Your task to perform on an android device: turn notification dots on Image 0: 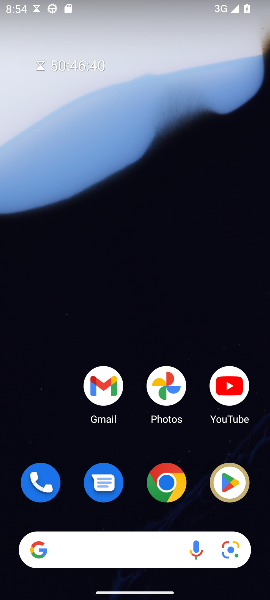
Step 0: drag from (144, 535) to (6, 115)
Your task to perform on an android device: turn notification dots on Image 1: 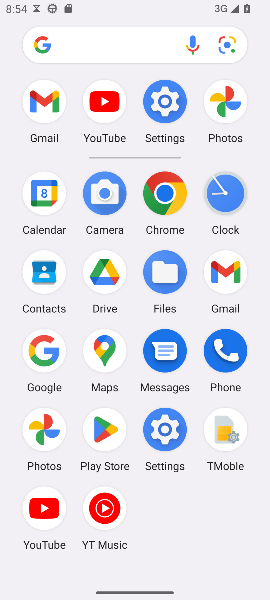
Step 1: click (164, 96)
Your task to perform on an android device: turn notification dots on Image 2: 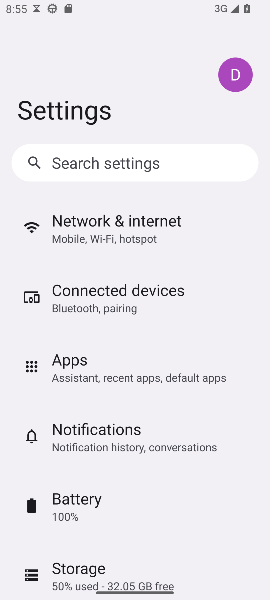
Step 2: click (134, 449)
Your task to perform on an android device: turn notification dots on Image 3: 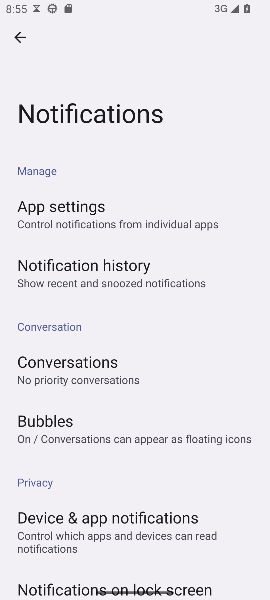
Step 3: drag from (115, 431) to (1, 154)
Your task to perform on an android device: turn notification dots on Image 4: 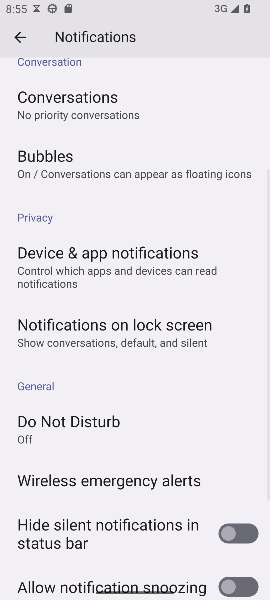
Step 4: drag from (96, 519) to (16, 265)
Your task to perform on an android device: turn notification dots on Image 5: 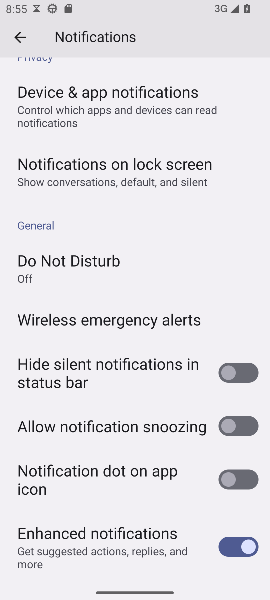
Step 5: drag from (74, 424) to (0, 285)
Your task to perform on an android device: turn notification dots on Image 6: 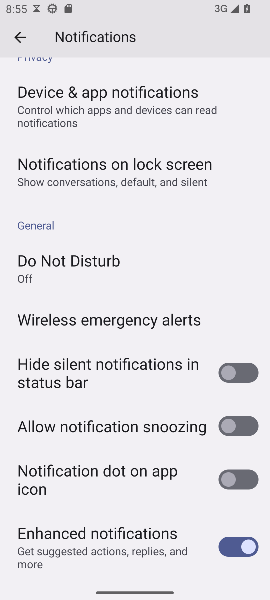
Step 6: click (238, 482)
Your task to perform on an android device: turn notification dots on Image 7: 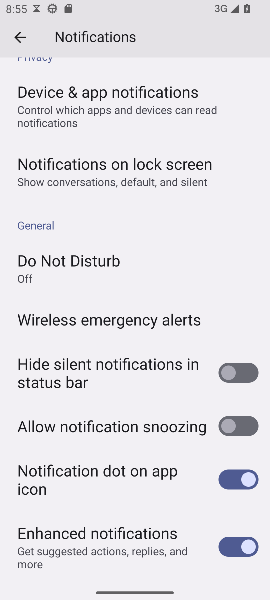
Step 7: task complete